Your task to perform on an android device: show emergency info Image 0: 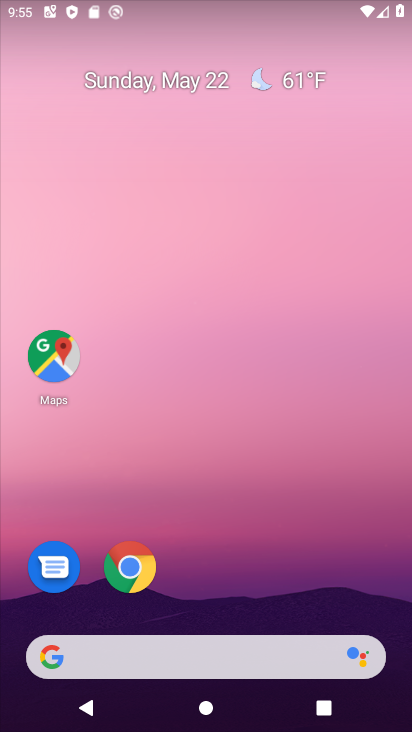
Step 0: drag from (208, 631) to (123, 106)
Your task to perform on an android device: show emergency info Image 1: 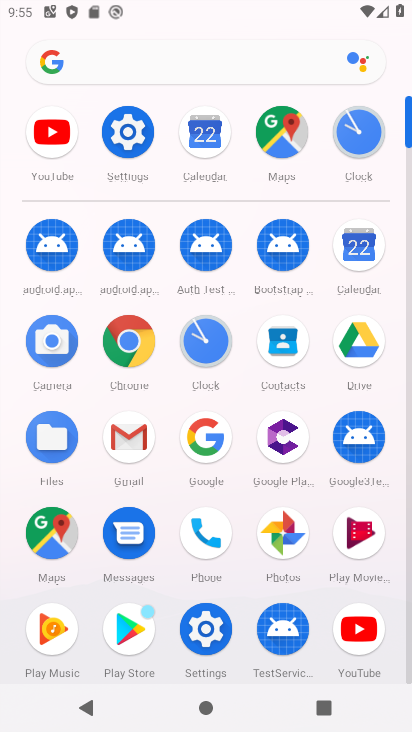
Step 1: click (126, 137)
Your task to perform on an android device: show emergency info Image 2: 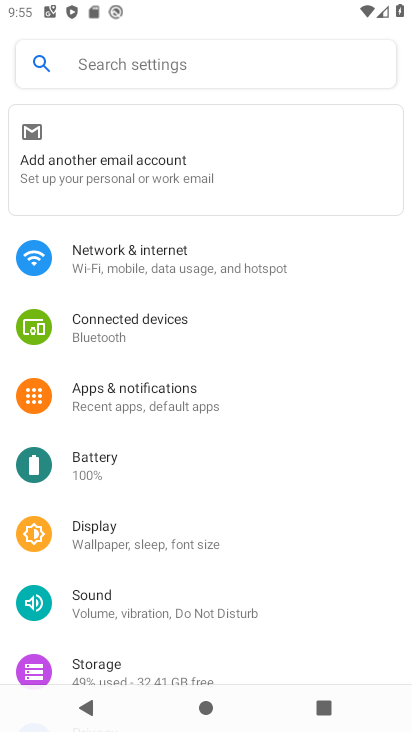
Step 2: drag from (273, 562) to (264, 6)
Your task to perform on an android device: show emergency info Image 3: 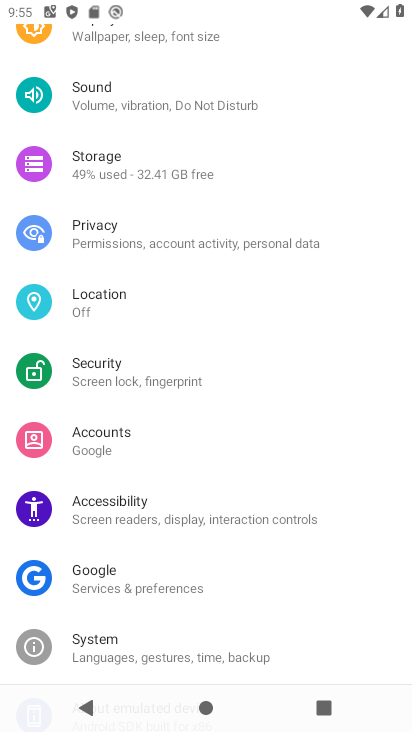
Step 3: drag from (182, 646) to (147, 62)
Your task to perform on an android device: show emergency info Image 4: 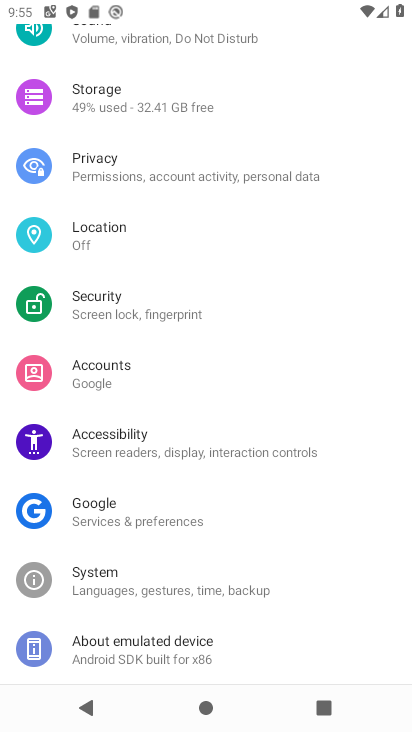
Step 4: click (139, 647)
Your task to perform on an android device: show emergency info Image 5: 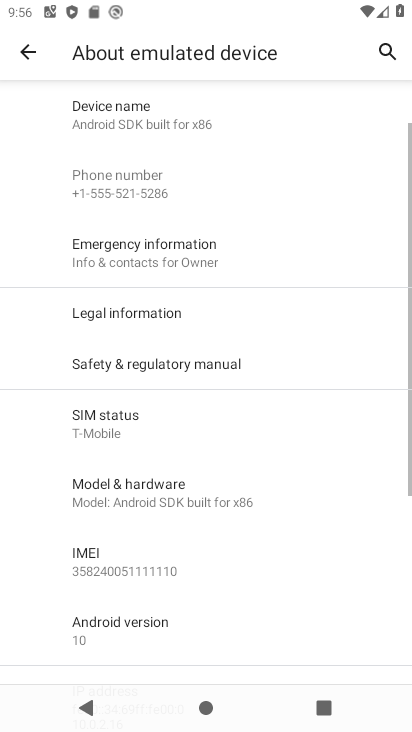
Step 5: click (155, 248)
Your task to perform on an android device: show emergency info Image 6: 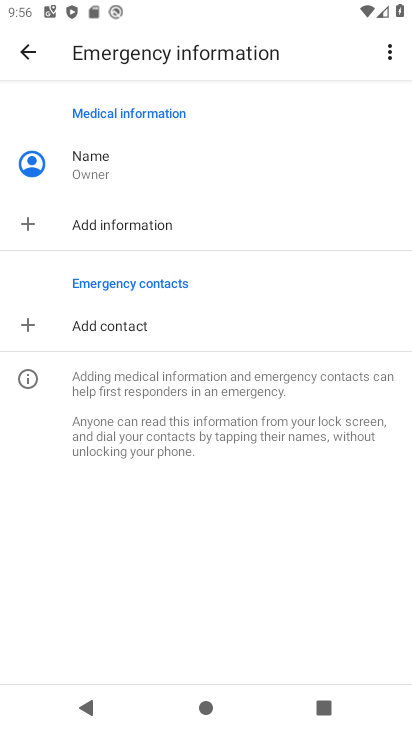
Step 6: task complete